Your task to perform on an android device: Go to CNN.com Image 0: 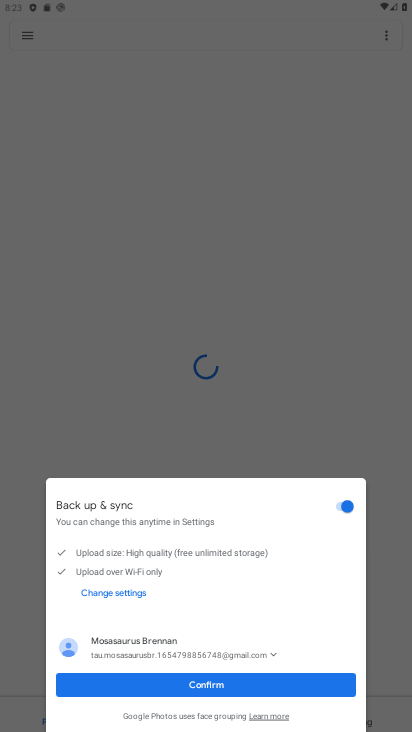
Step 0: press home button
Your task to perform on an android device: Go to CNN.com Image 1: 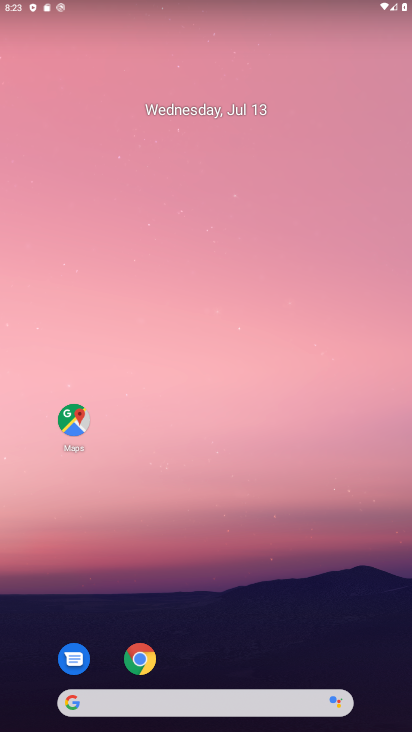
Step 1: click (149, 657)
Your task to perform on an android device: Go to CNN.com Image 2: 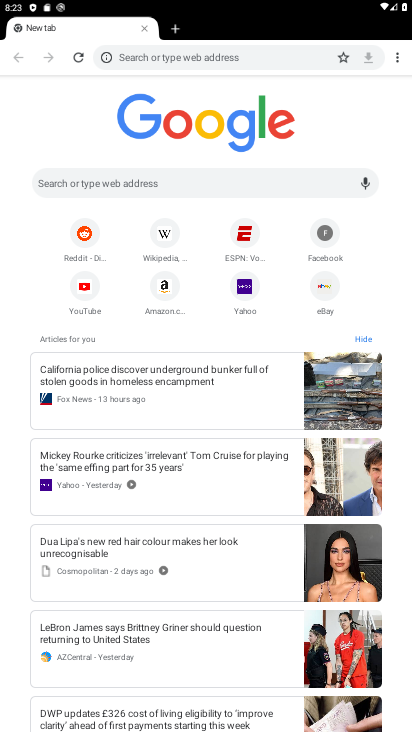
Step 2: click (131, 48)
Your task to perform on an android device: Go to CNN.com Image 3: 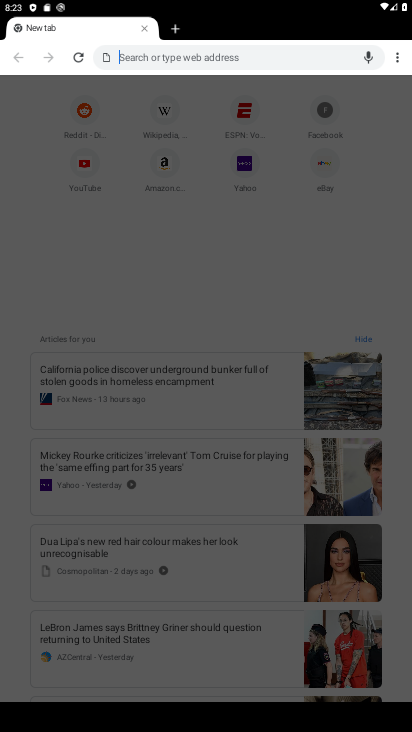
Step 3: type "CNN.com"
Your task to perform on an android device: Go to CNN.com Image 4: 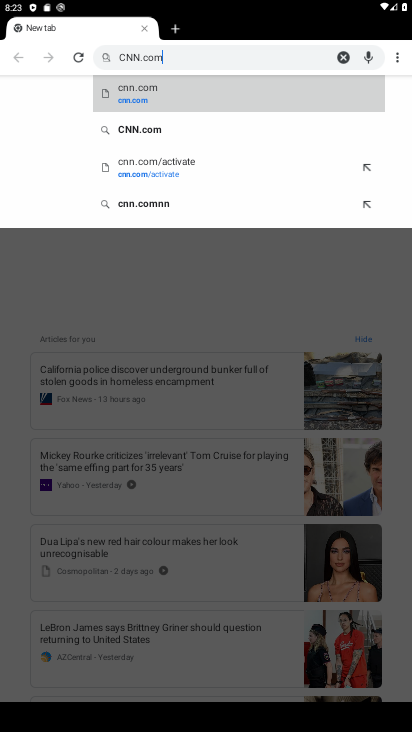
Step 4: type ""
Your task to perform on an android device: Go to CNN.com Image 5: 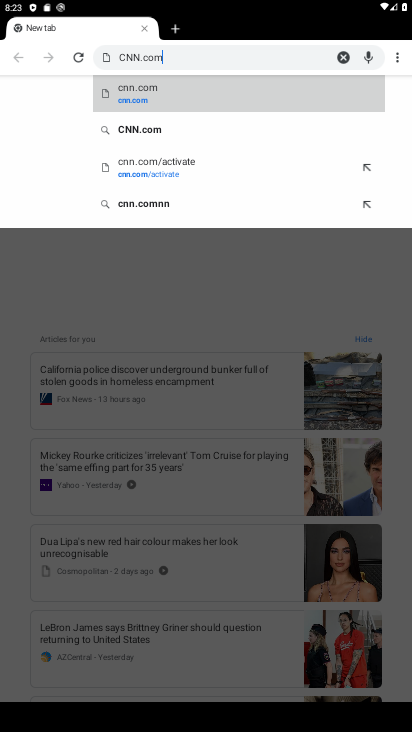
Step 5: click (180, 92)
Your task to perform on an android device: Go to CNN.com Image 6: 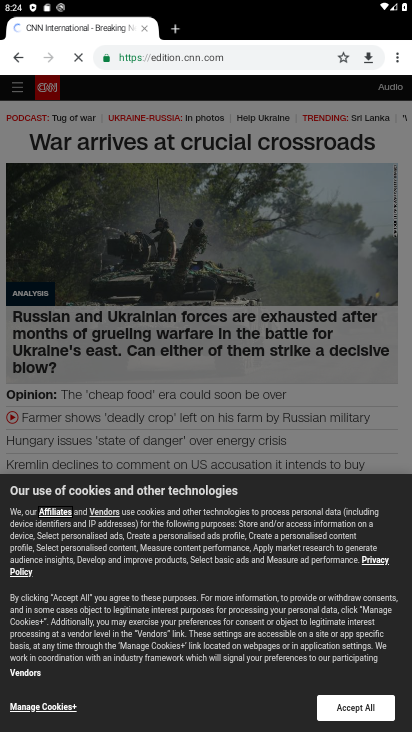
Step 6: task complete